Your task to perform on an android device: Check the weather Image 0: 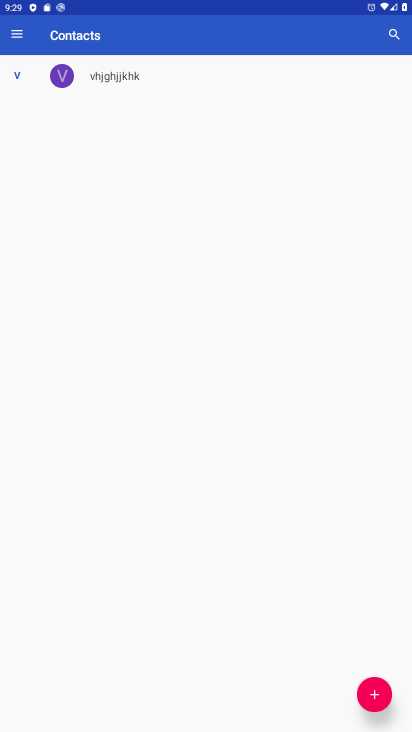
Step 0: press home button
Your task to perform on an android device: Check the weather Image 1: 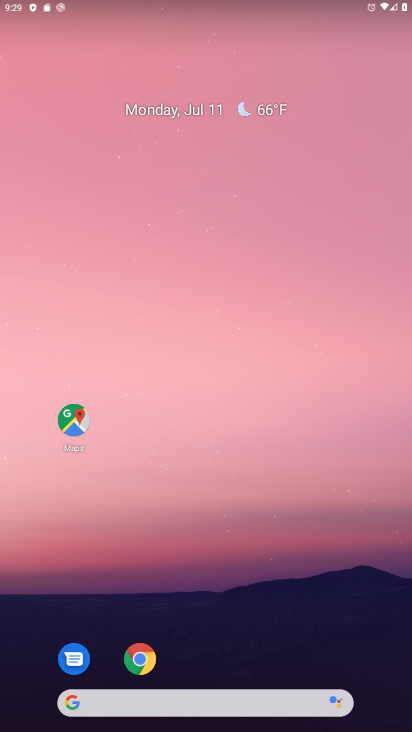
Step 1: click (197, 704)
Your task to perform on an android device: Check the weather Image 2: 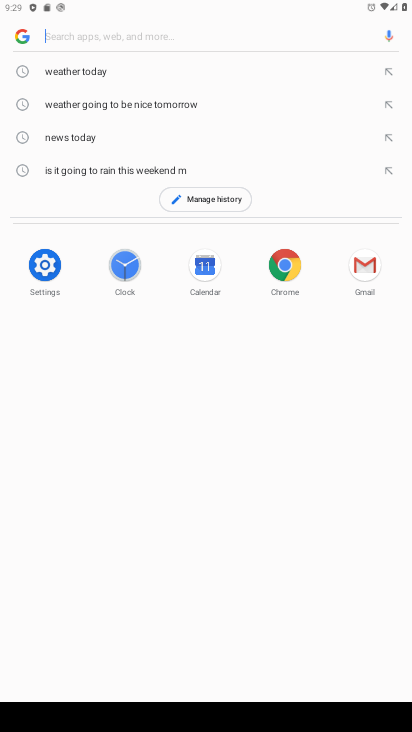
Step 2: click (217, 31)
Your task to perform on an android device: Check the weather Image 3: 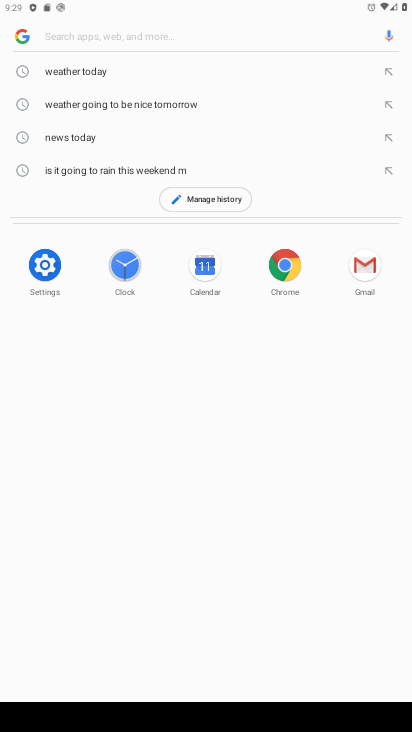
Step 3: type "weather"
Your task to perform on an android device: Check the weather Image 4: 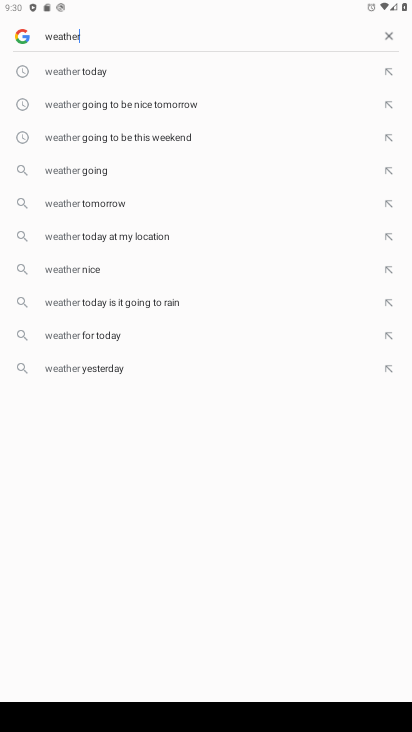
Step 4: click (122, 74)
Your task to perform on an android device: Check the weather Image 5: 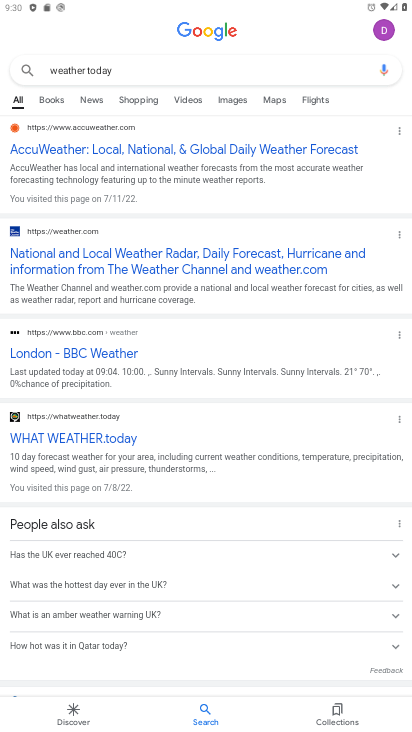
Step 5: task complete